Your task to perform on an android device: Do I have any events this weekend? Image 0: 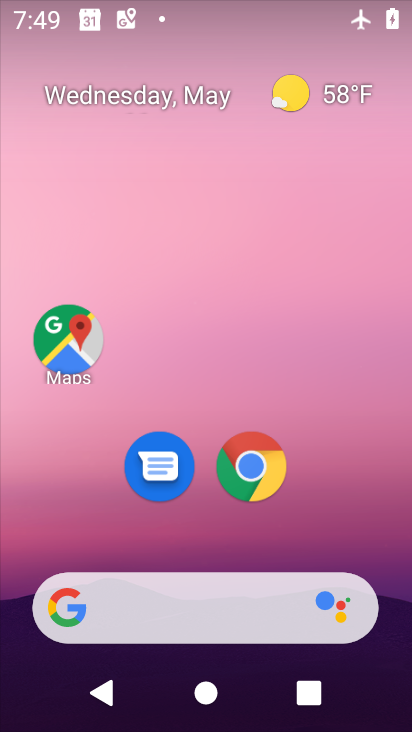
Step 0: drag from (190, 508) to (219, 74)
Your task to perform on an android device: Do I have any events this weekend? Image 1: 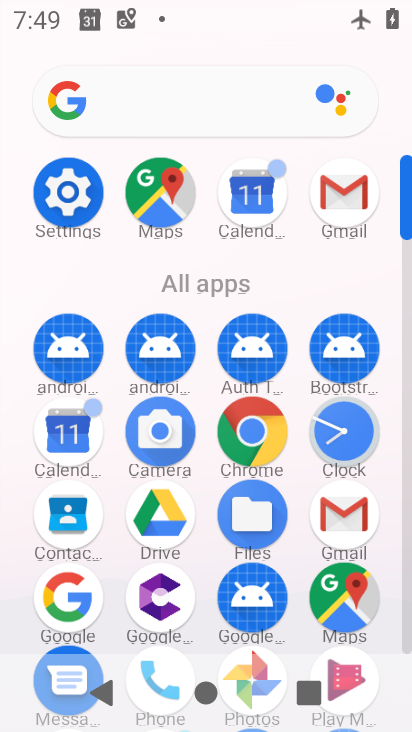
Step 1: click (62, 433)
Your task to perform on an android device: Do I have any events this weekend? Image 2: 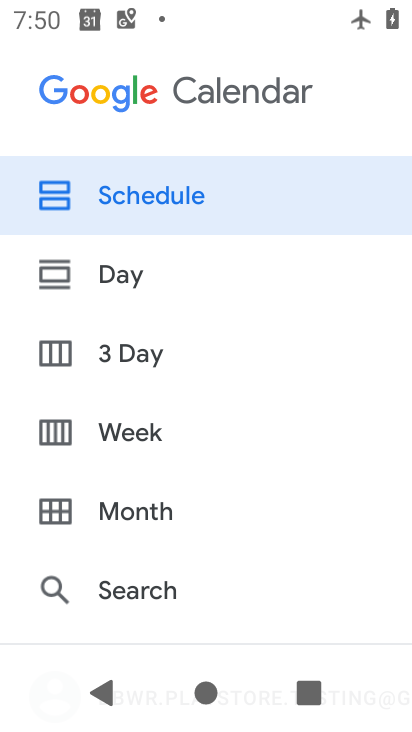
Step 2: click (90, 430)
Your task to perform on an android device: Do I have any events this weekend? Image 3: 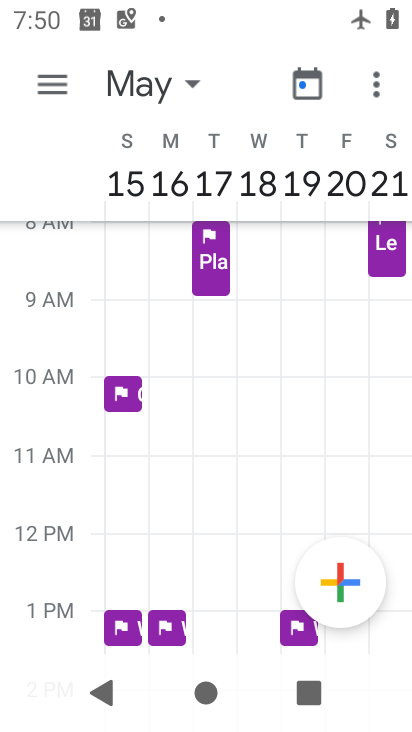
Step 3: drag from (120, 179) to (408, 189)
Your task to perform on an android device: Do I have any events this weekend? Image 4: 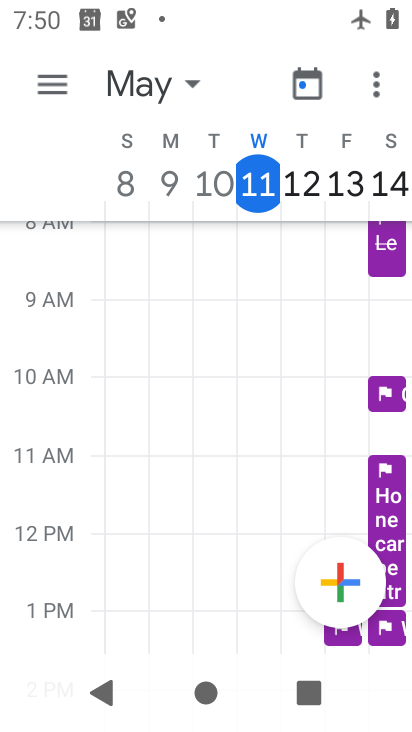
Step 4: click (253, 184)
Your task to perform on an android device: Do I have any events this weekend? Image 5: 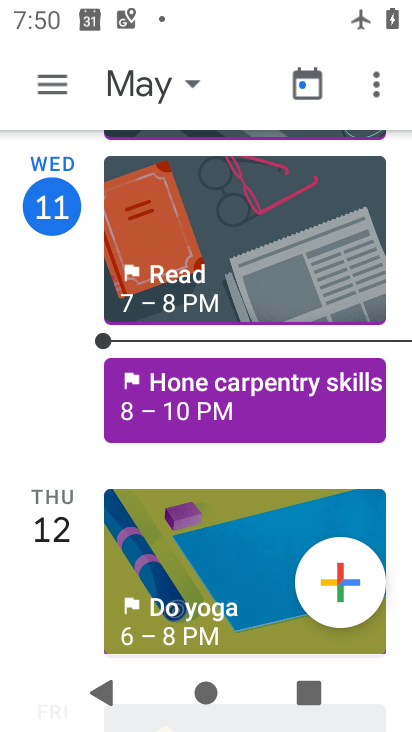
Step 5: task complete